Your task to perform on an android device: What's the news in Sri Lanka? Image 0: 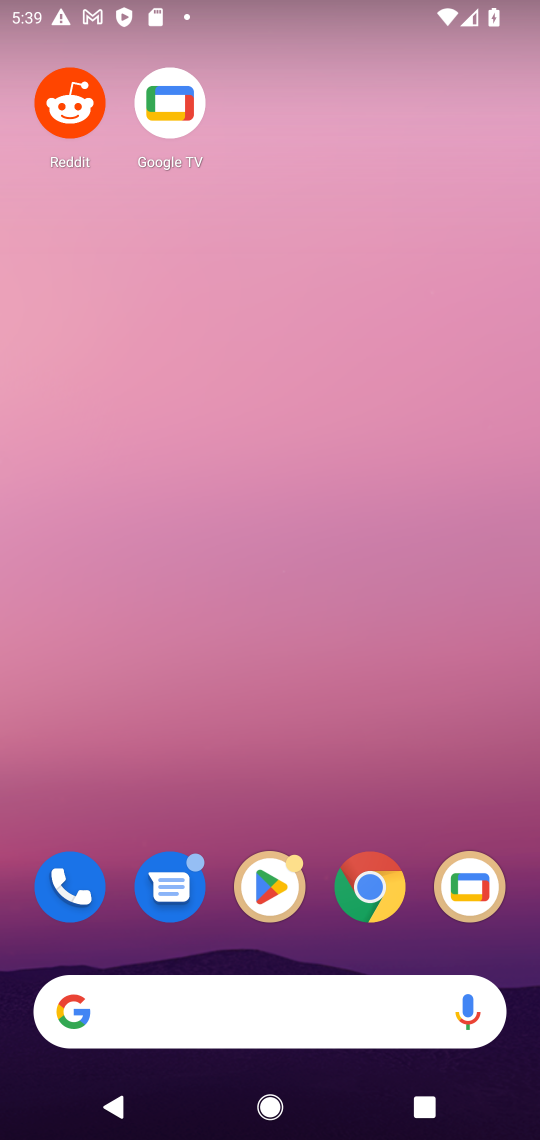
Step 0: click (245, 1010)
Your task to perform on an android device: What's the news in Sri Lanka? Image 1: 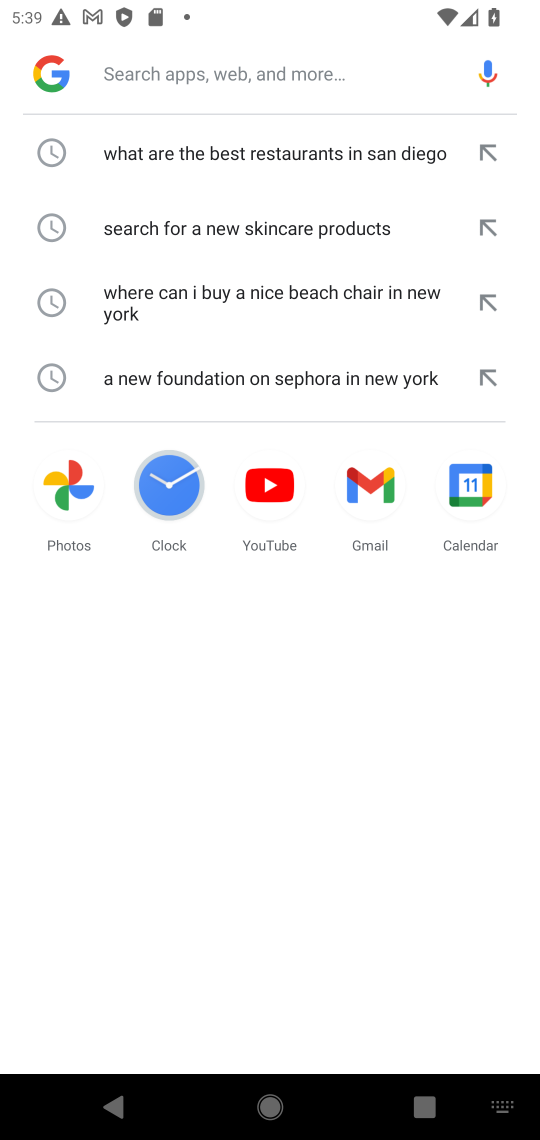
Step 1: type "What's the news in Sri Lanka?"
Your task to perform on an android device: What's the news in Sri Lanka? Image 2: 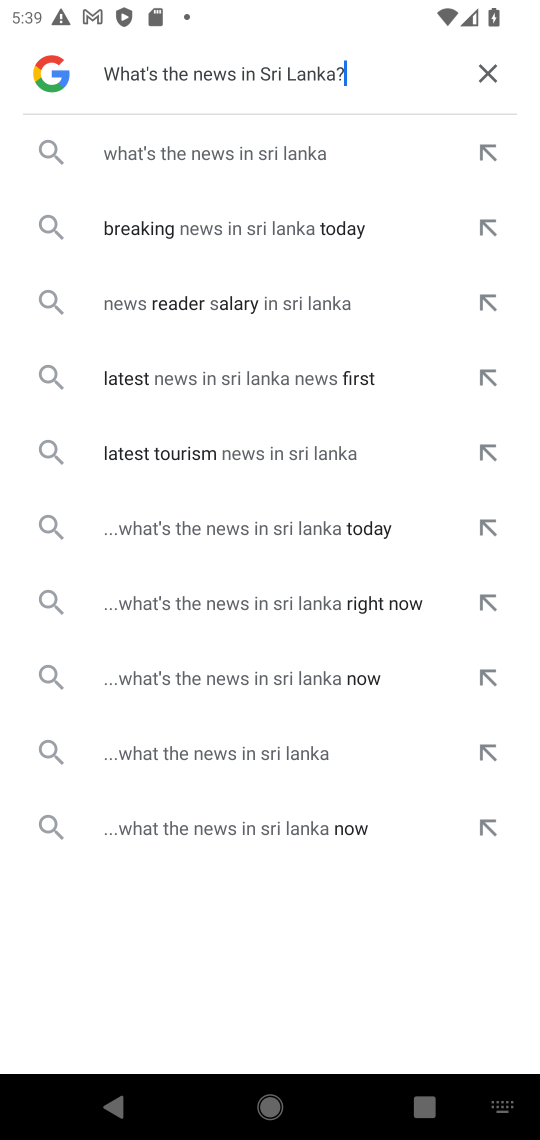
Step 2: click (228, 151)
Your task to perform on an android device: What's the news in Sri Lanka? Image 3: 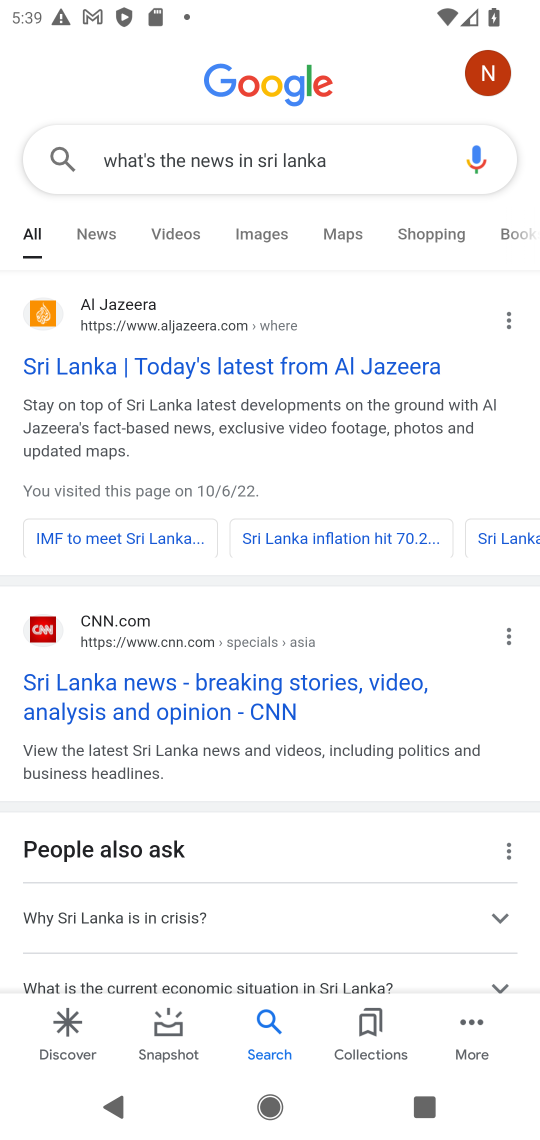
Step 3: task complete